Your task to perform on an android device: turn off picture-in-picture Image 0: 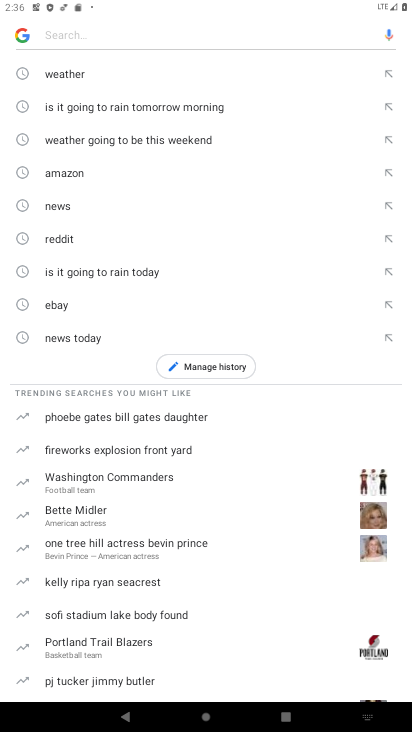
Step 0: press home button
Your task to perform on an android device: turn off picture-in-picture Image 1: 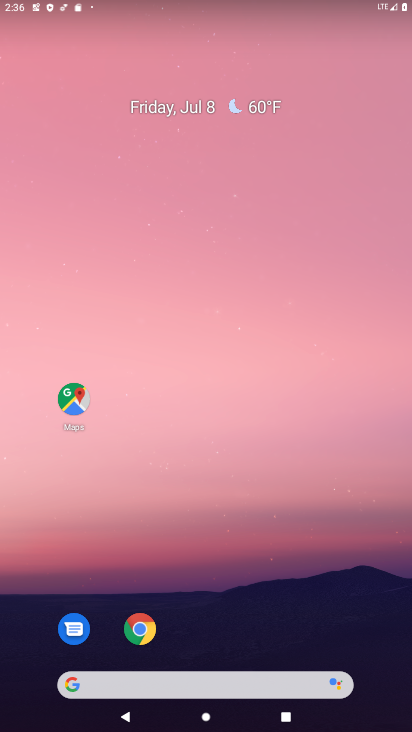
Step 1: click (144, 642)
Your task to perform on an android device: turn off picture-in-picture Image 2: 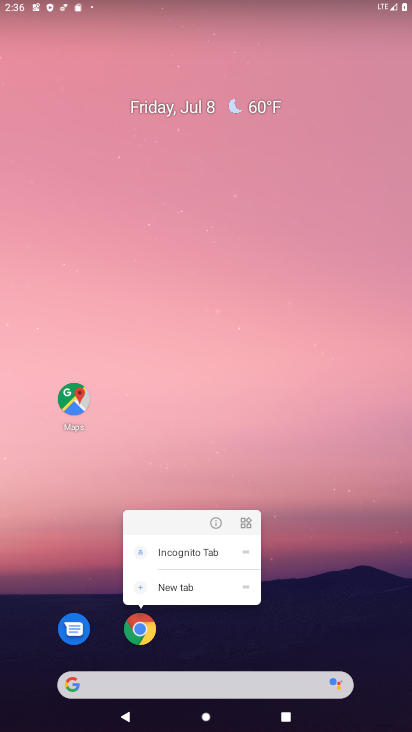
Step 2: click (221, 524)
Your task to perform on an android device: turn off picture-in-picture Image 3: 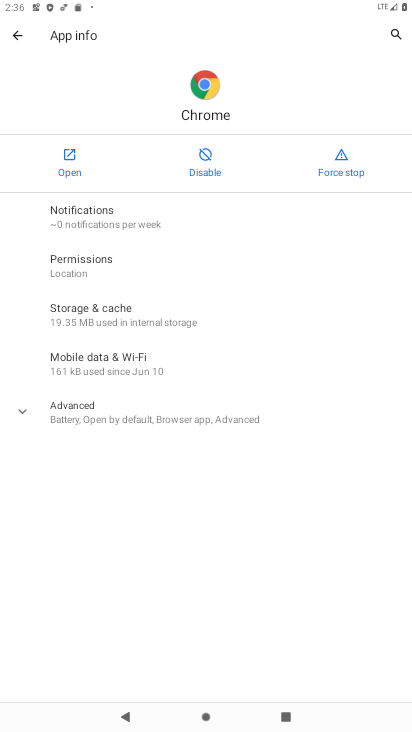
Step 3: click (117, 418)
Your task to perform on an android device: turn off picture-in-picture Image 4: 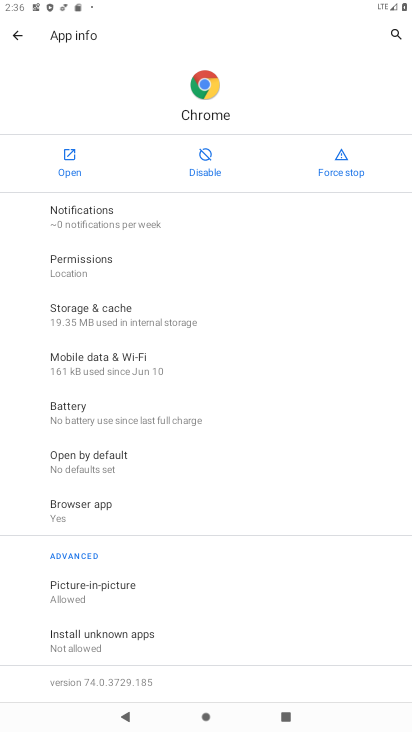
Step 4: click (130, 582)
Your task to perform on an android device: turn off picture-in-picture Image 5: 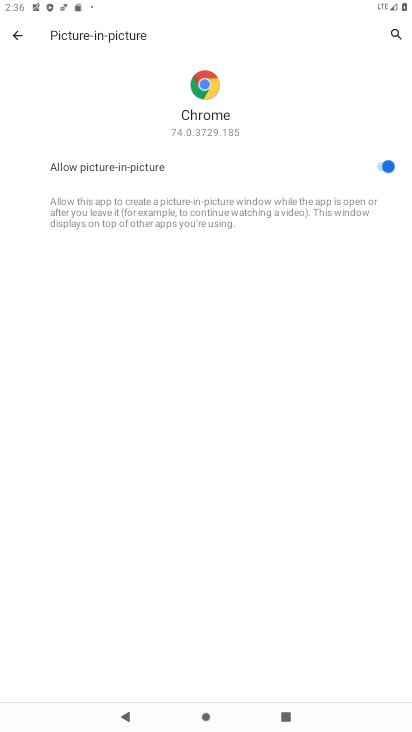
Step 5: click (388, 161)
Your task to perform on an android device: turn off picture-in-picture Image 6: 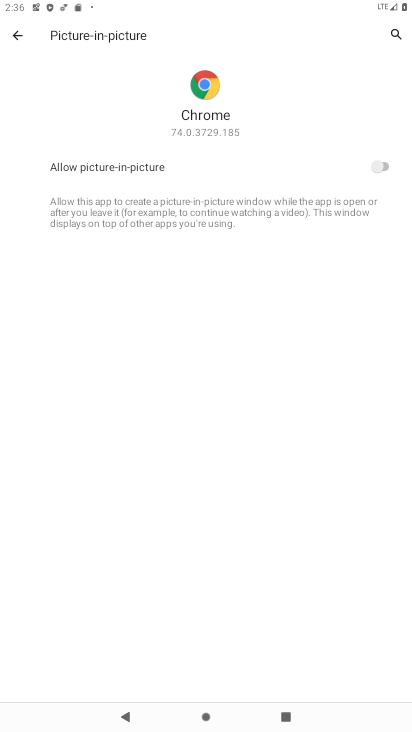
Step 6: task complete